Your task to perform on an android device: turn off sleep mode Image 0: 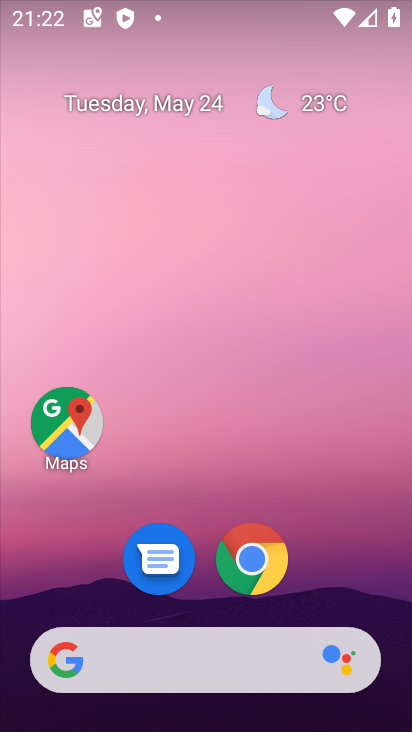
Step 0: drag from (353, 502) to (332, 109)
Your task to perform on an android device: turn off sleep mode Image 1: 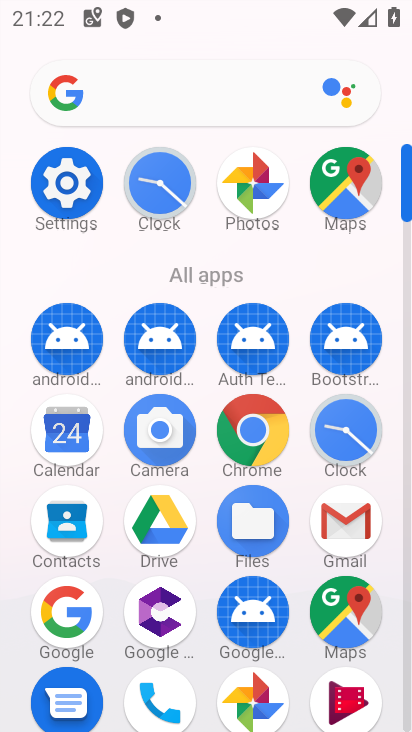
Step 1: click (68, 174)
Your task to perform on an android device: turn off sleep mode Image 2: 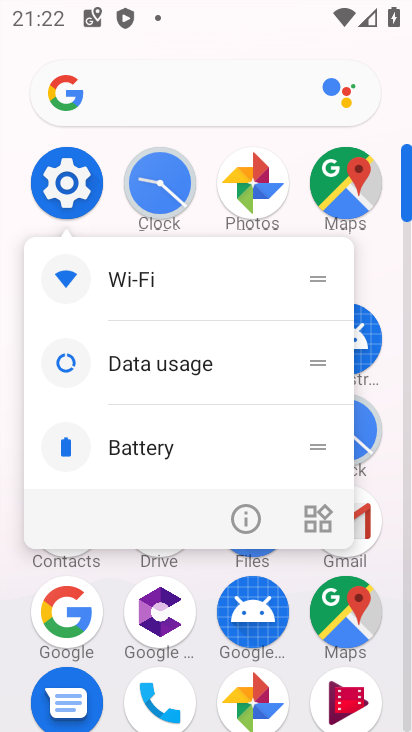
Step 2: click (68, 173)
Your task to perform on an android device: turn off sleep mode Image 3: 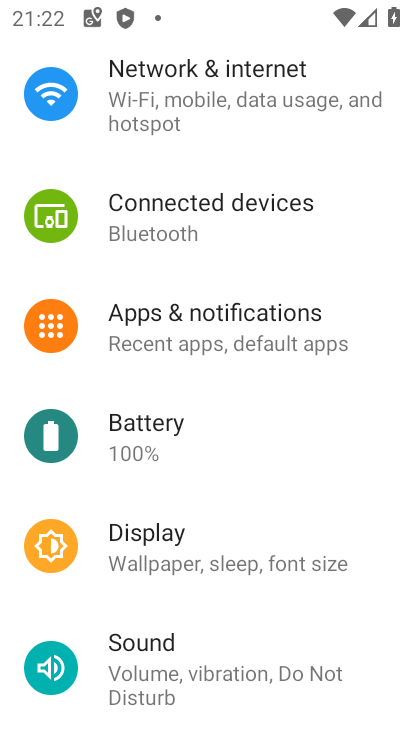
Step 3: click (173, 542)
Your task to perform on an android device: turn off sleep mode Image 4: 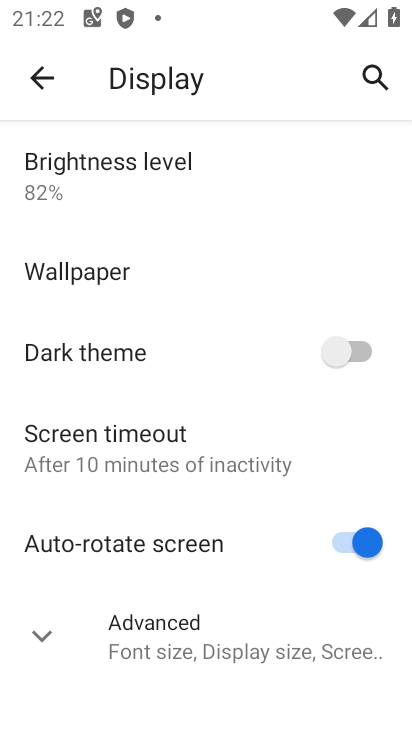
Step 4: click (136, 435)
Your task to perform on an android device: turn off sleep mode Image 5: 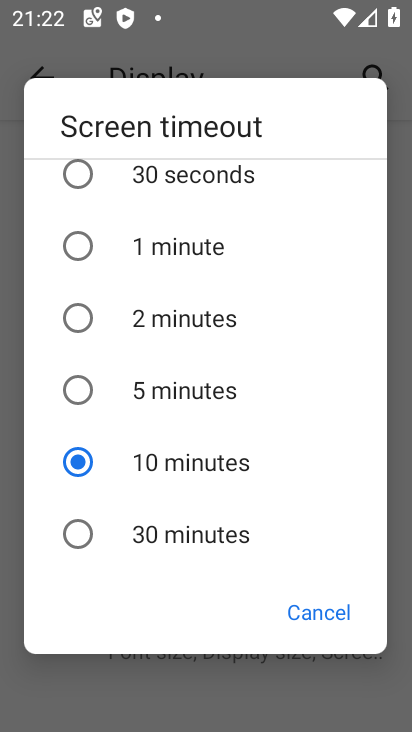
Step 5: task complete